Your task to perform on an android device: open app "Calculator" (install if not already installed) Image 0: 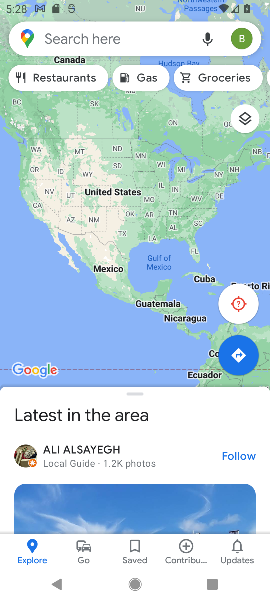
Step 0: press home button
Your task to perform on an android device: open app "Calculator" (install if not already installed) Image 1: 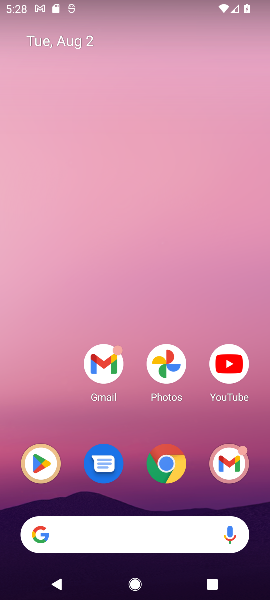
Step 1: click (40, 462)
Your task to perform on an android device: open app "Calculator" (install if not already installed) Image 2: 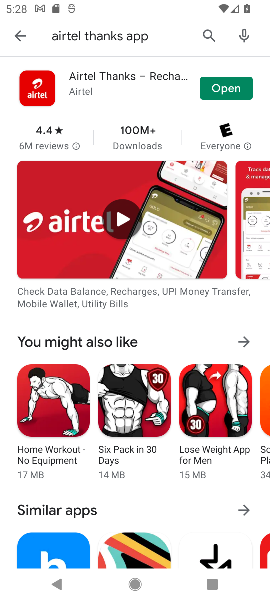
Step 2: click (205, 34)
Your task to perform on an android device: open app "Calculator" (install if not already installed) Image 3: 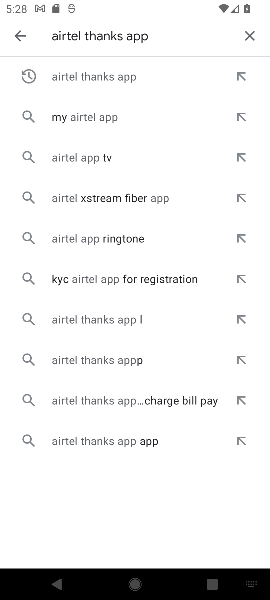
Step 3: click (250, 35)
Your task to perform on an android device: open app "Calculator" (install if not already installed) Image 4: 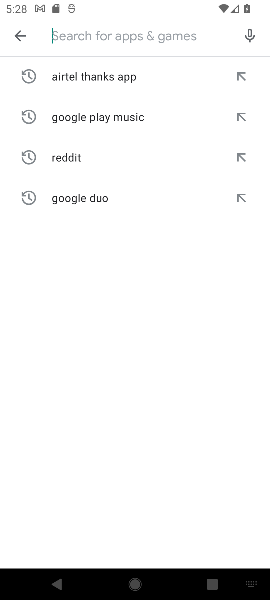
Step 4: type "Calculator"
Your task to perform on an android device: open app "Calculator" (install if not already installed) Image 5: 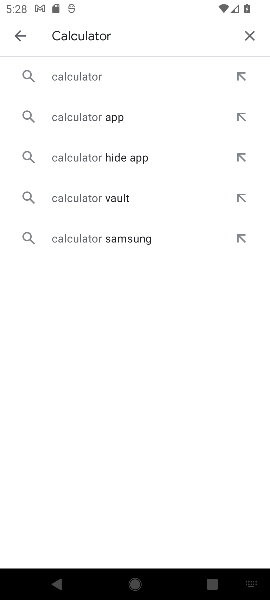
Step 5: click (84, 78)
Your task to perform on an android device: open app "Calculator" (install if not already installed) Image 6: 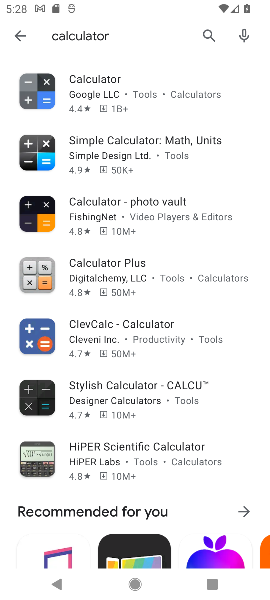
Step 6: click (98, 92)
Your task to perform on an android device: open app "Calculator" (install if not already installed) Image 7: 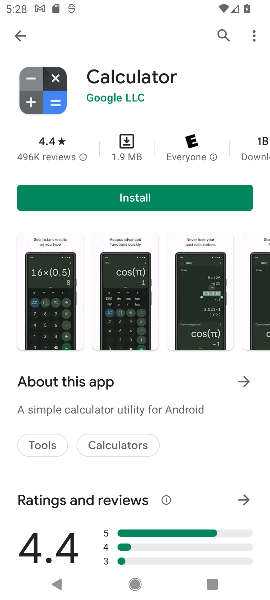
Step 7: click (144, 191)
Your task to perform on an android device: open app "Calculator" (install if not already installed) Image 8: 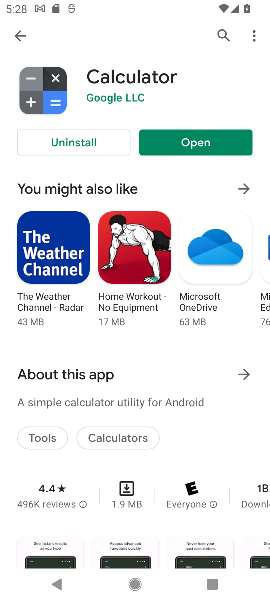
Step 8: click (195, 141)
Your task to perform on an android device: open app "Calculator" (install if not already installed) Image 9: 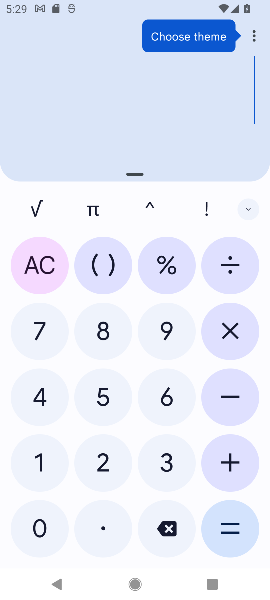
Step 9: task complete